Your task to perform on an android device: turn smart compose on in the gmail app Image 0: 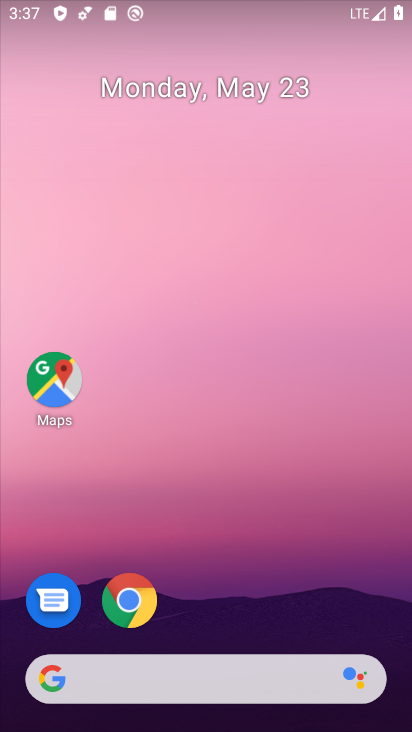
Step 0: drag from (230, 630) to (247, 58)
Your task to perform on an android device: turn smart compose on in the gmail app Image 1: 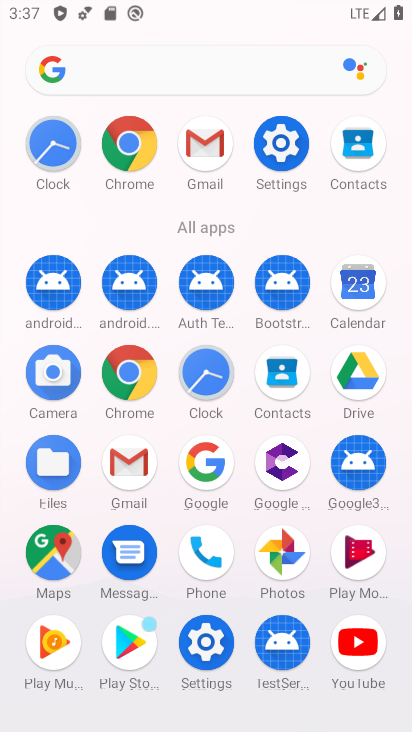
Step 1: click (201, 151)
Your task to perform on an android device: turn smart compose on in the gmail app Image 2: 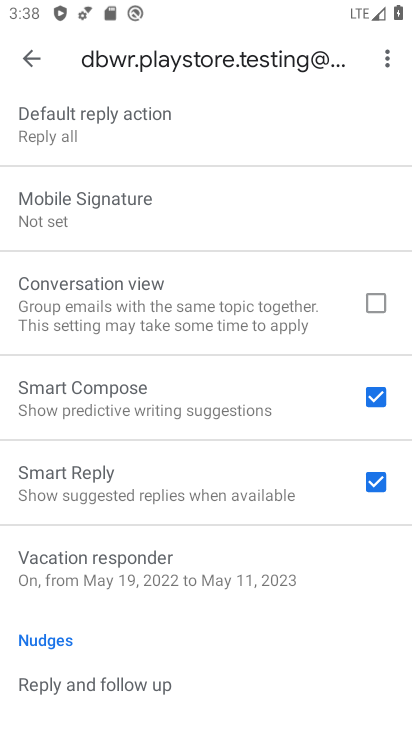
Step 2: task complete